Your task to perform on an android device: add a contact Image 0: 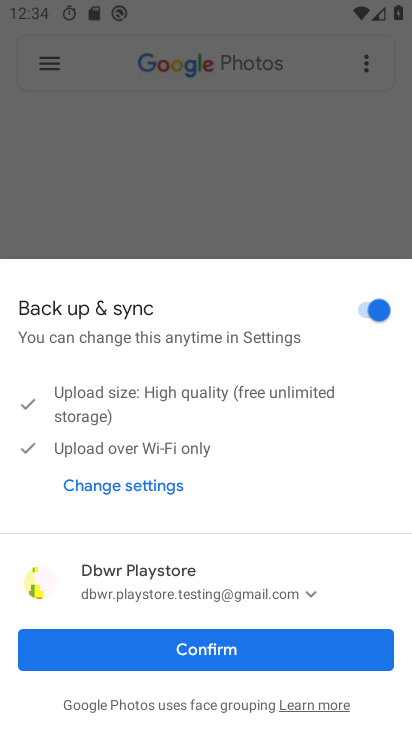
Step 0: press back button
Your task to perform on an android device: add a contact Image 1: 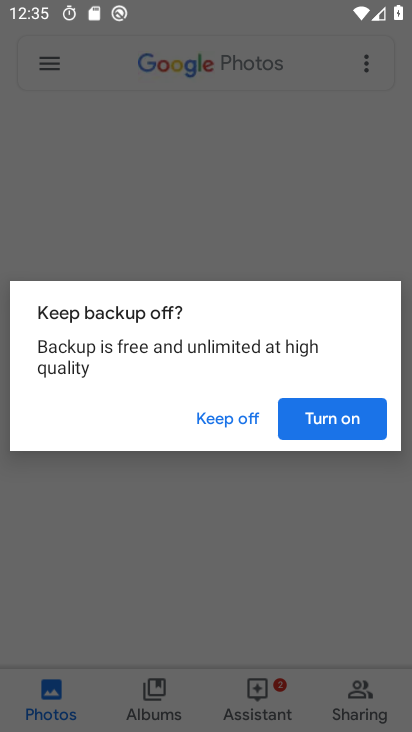
Step 1: press back button
Your task to perform on an android device: add a contact Image 2: 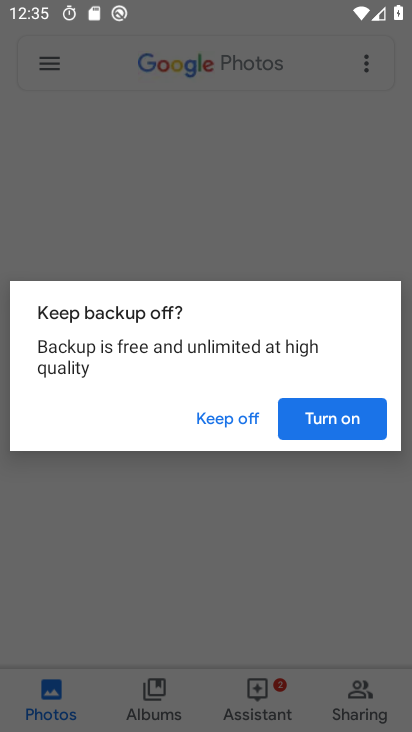
Step 2: press home button
Your task to perform on an android device: add a contact Image 3: 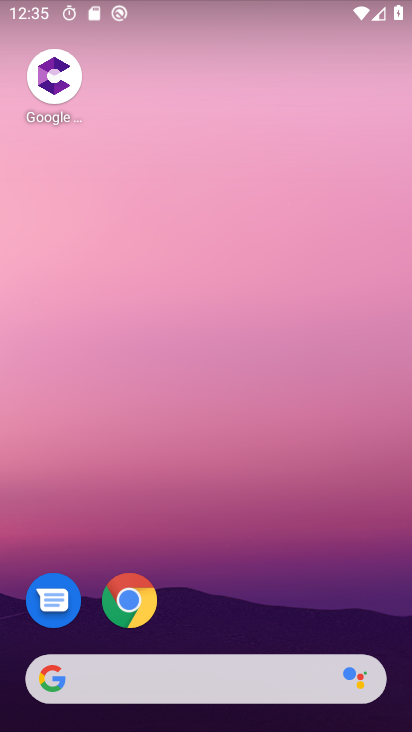
Step 3: drag from (211, 632) to (299, 6)
Your task to perform on an android device: add a contact Image 4: 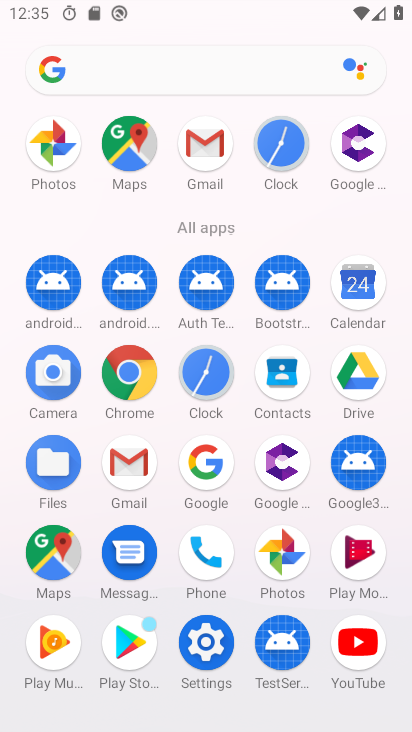
Step 4: click (278, 375)
Your task to perform on an android device: add a contact Image 5: 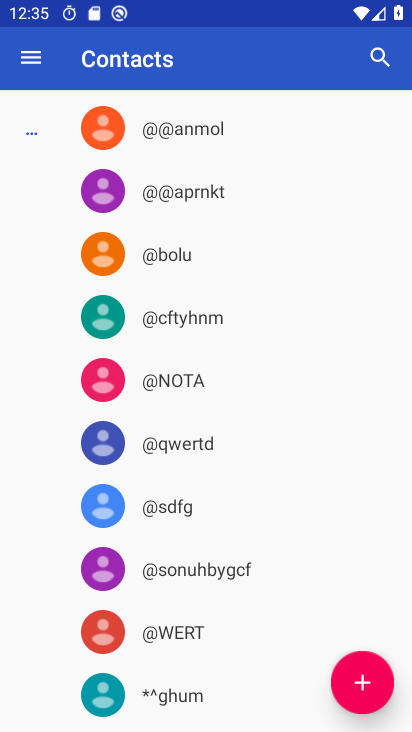
Step 5: click (368, 683)
Your task to perform on an android device: add a contact Image 6: 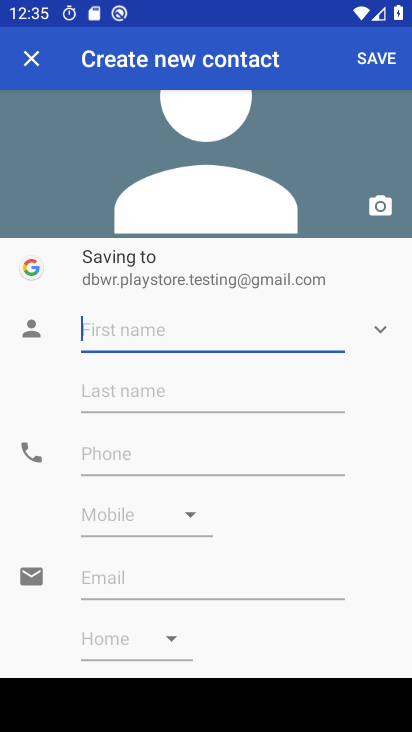
Step 6: type "vgvch"
Your task to perform on an android device: add a contact Image 7: 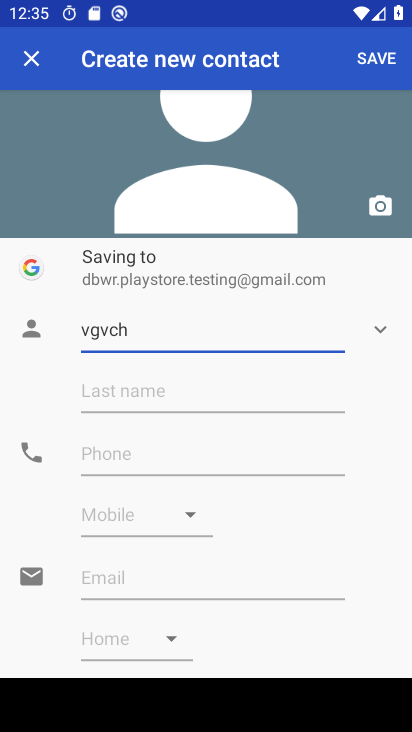
Step 7: click (138, 389)
Your task to perform on an android device: add a contact Image 8: 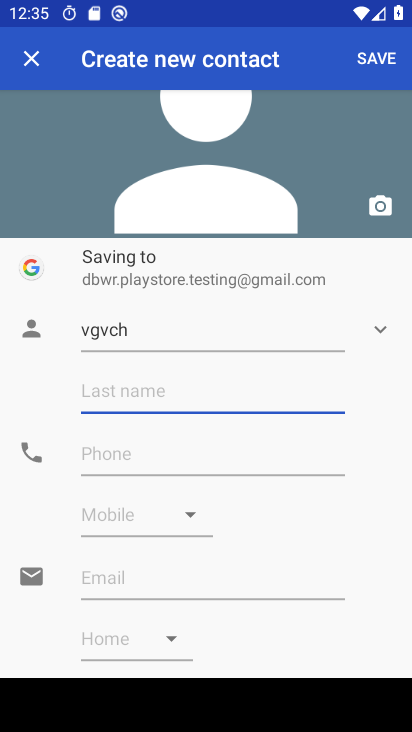
Step 8: click (121, 460)
Your task to perform on an android device: add a contact Image 9: 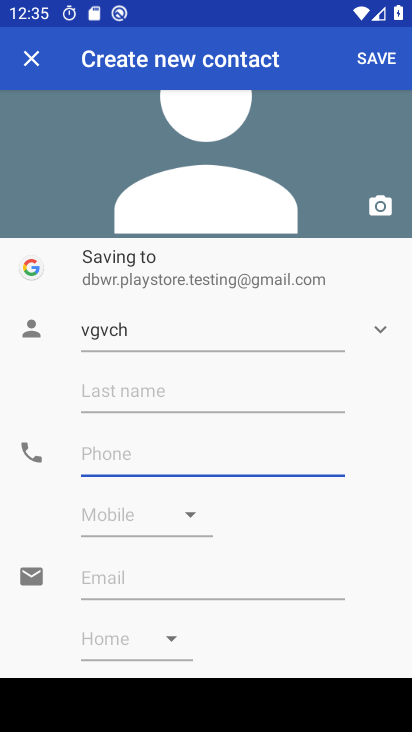
Step 9: type "7868"
Your task to perform on an android device: add a contact Image 10: 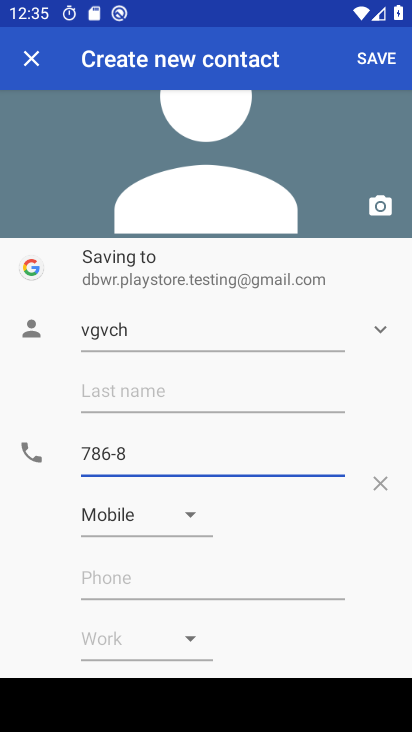
Step 10: click (377, 42)
Your task to perform on an android device: add a contact Image 11: 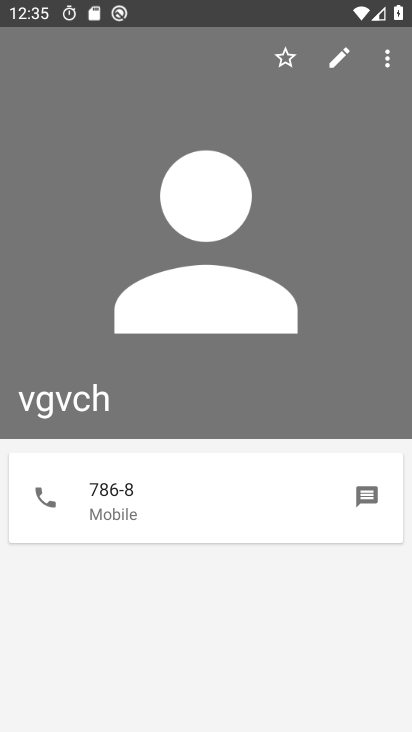
Step 11: task complete